Your task to perform on an android device: Show me the alarms in the clock app Image 0: 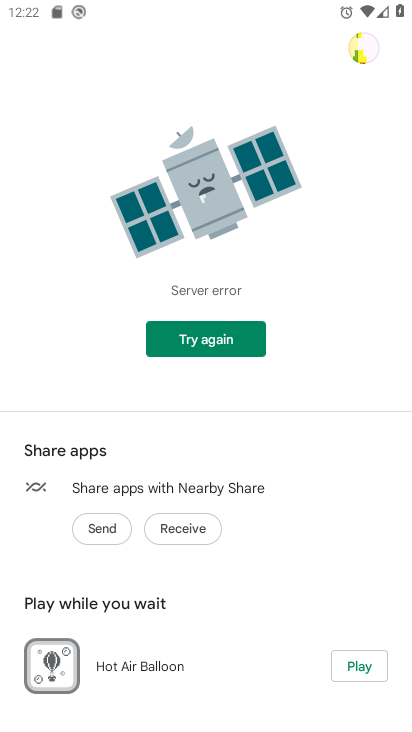
Step 0: press home button
Your task to perform on an android device: Show me the alarms in the clock app Image 1: 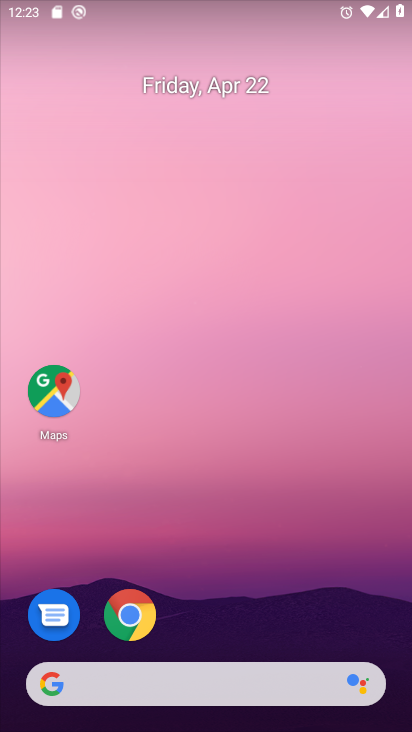
Step 1: drag from (203, 727) to (205, 63)
Your task to perform on an android device: Show me the alarms in the clock app Image 2: 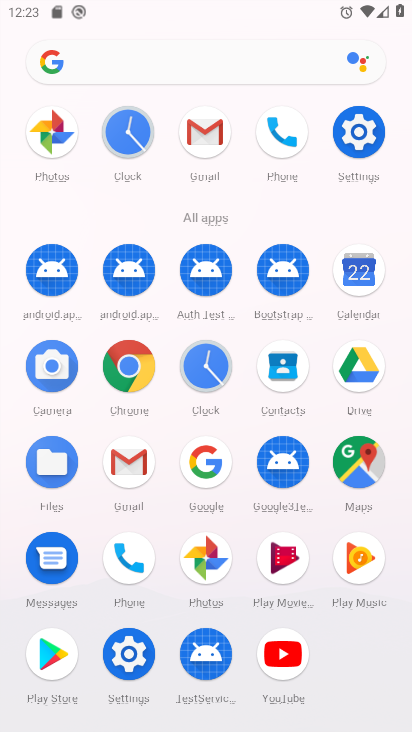
Step 2: click (217, 374)
Your task to perform on an android device: Show me the alarms in the clock app Image 3: 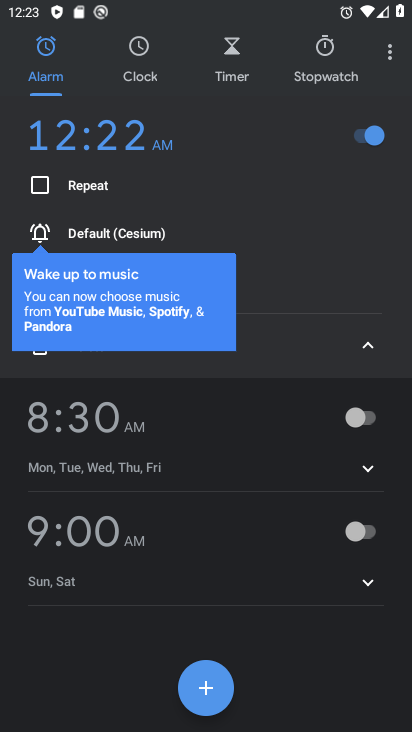
Step 3: task complete